Your task to perform on an android device: Add alienware aurora to the cart on amazon, then select checkout. Image 0: 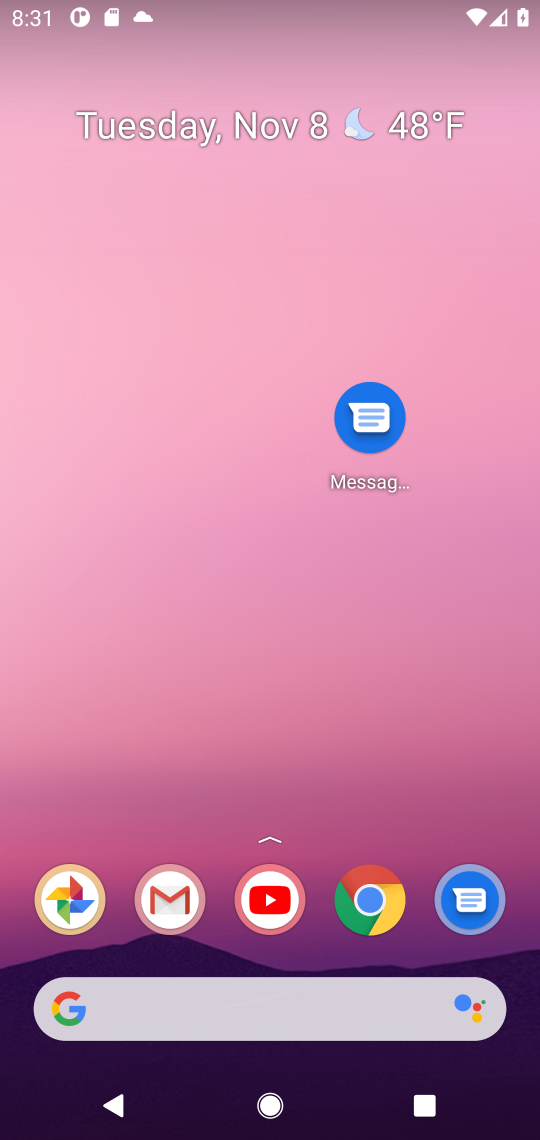
Step 0: drag from (272, 940) to (251, 58)
Your task to perform on an android device: Add alienware aurora to the cart on amazon, then select checkout. Image 1: 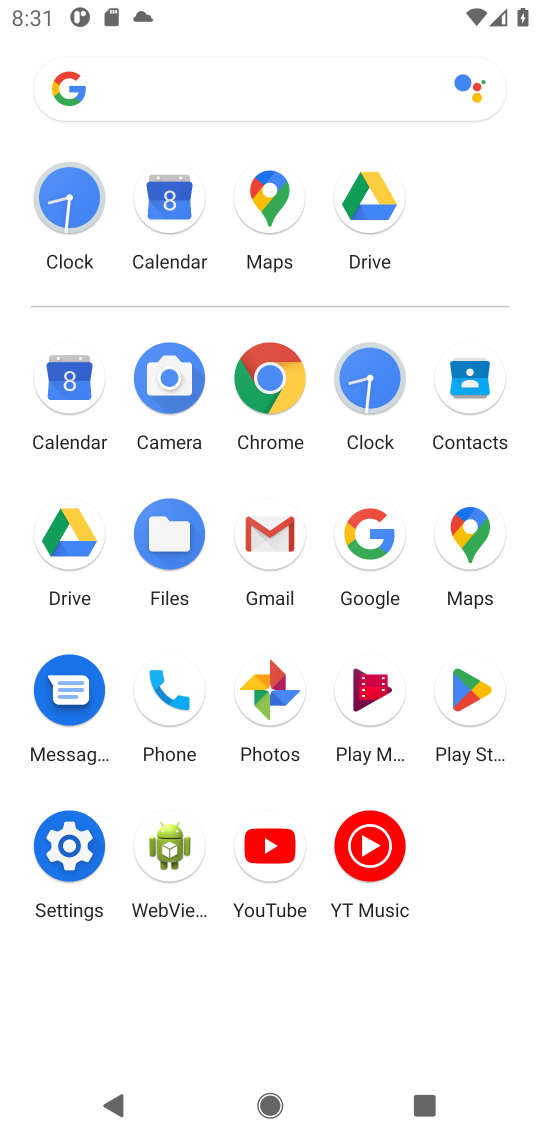
Step 1: click (377, 541)
Your task to perform on an android device: Add alienware aurora to the cart on amazon, then select checkout. Image 2: 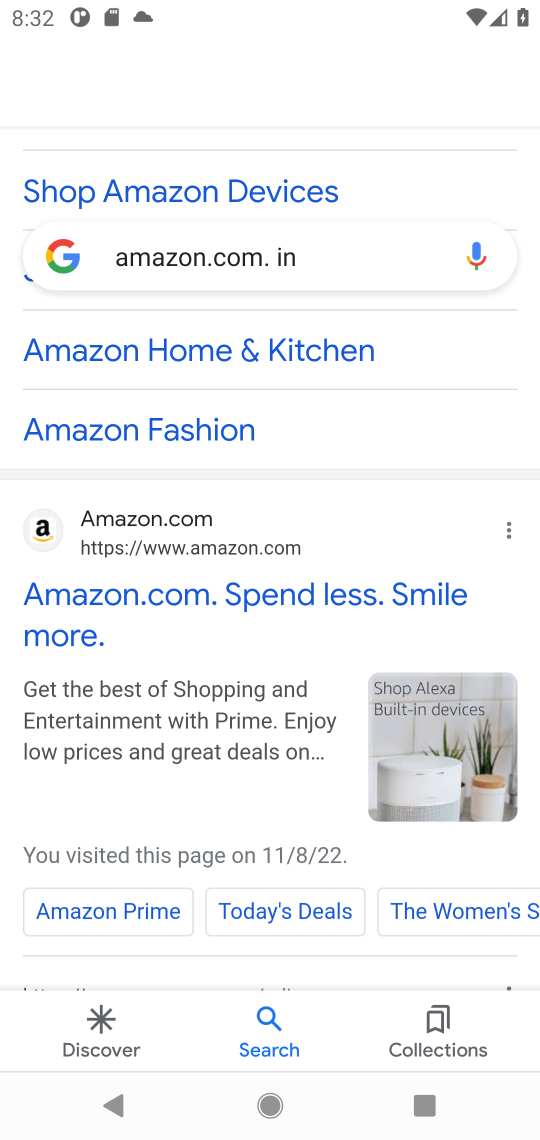
Step 2: click (296, 245)
Your task to perform on an android device: Add alienware aurora to the cart on amazon, then select checkout. Image 3: 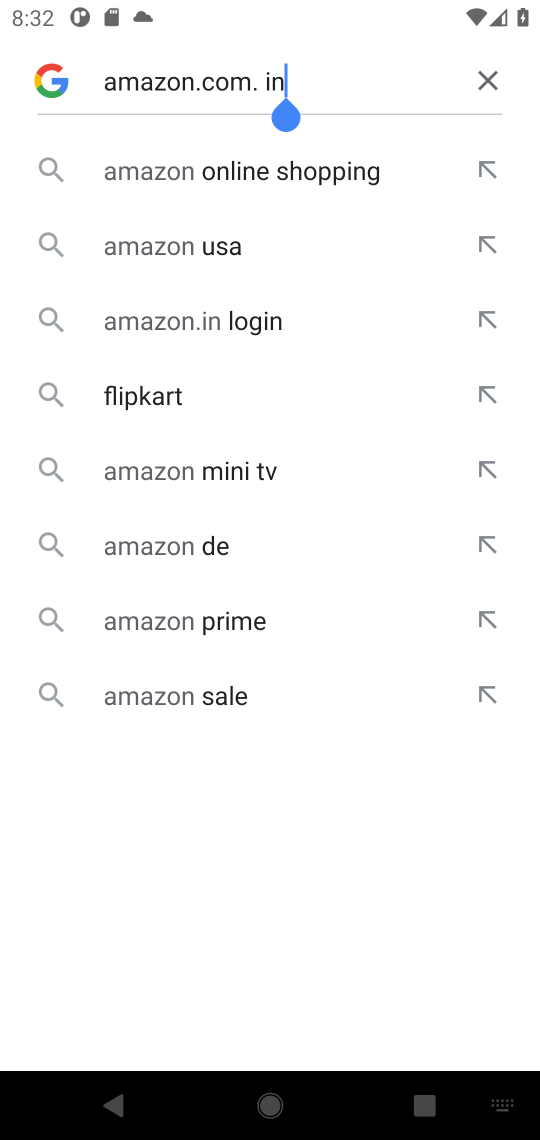
Step 3: click (496, 76)
Your task to perform on an android device: Add alienware aurora to the cart on amazon, then select checkout. Image 4: 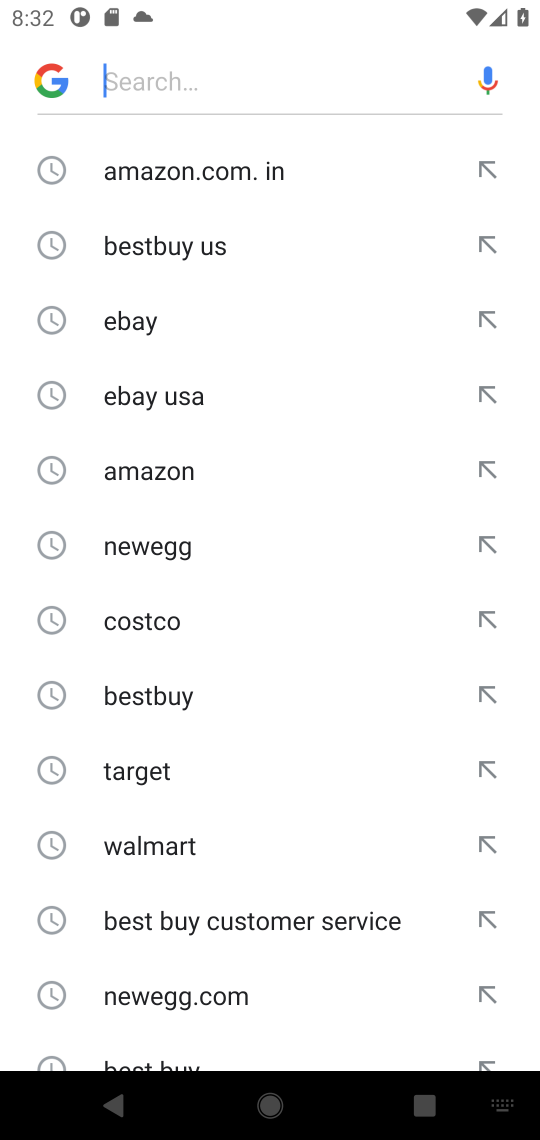
Step 4: click (149, 171)
Your task to perform on an android device: Add alienware aurora to the cart on amazon, then select checkout. Image 5: 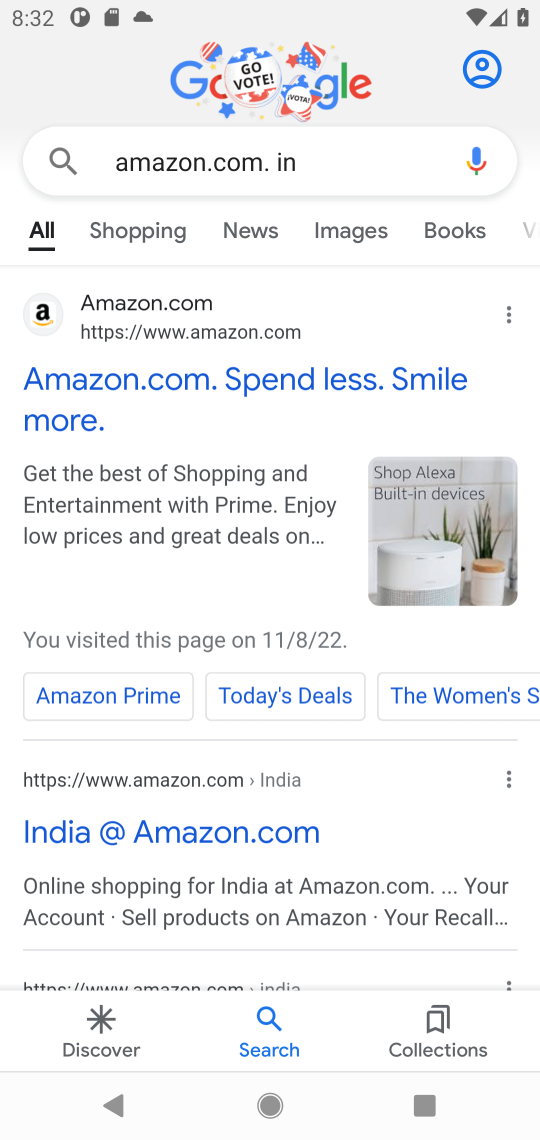
Step 5: click (49, 303)
Your task to perform on an android device: Add alienware aurora to the cart on amazon, then select checkout. Image 6: 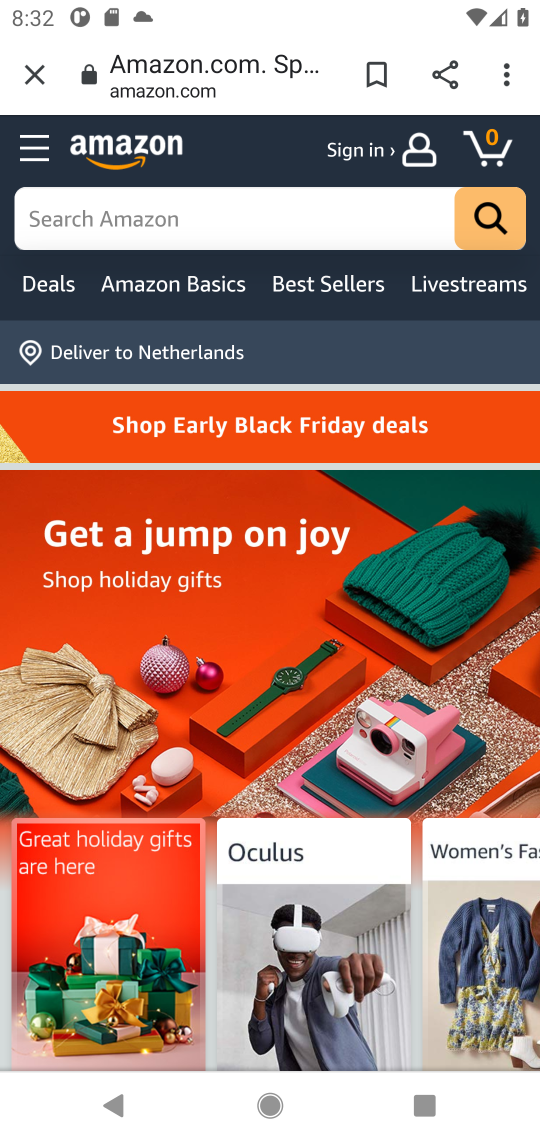
Step 6: click (232, 217)
Your task to perform on an android device: Add alienware aurora to the cart on amazon, then select checkout. Image 7: 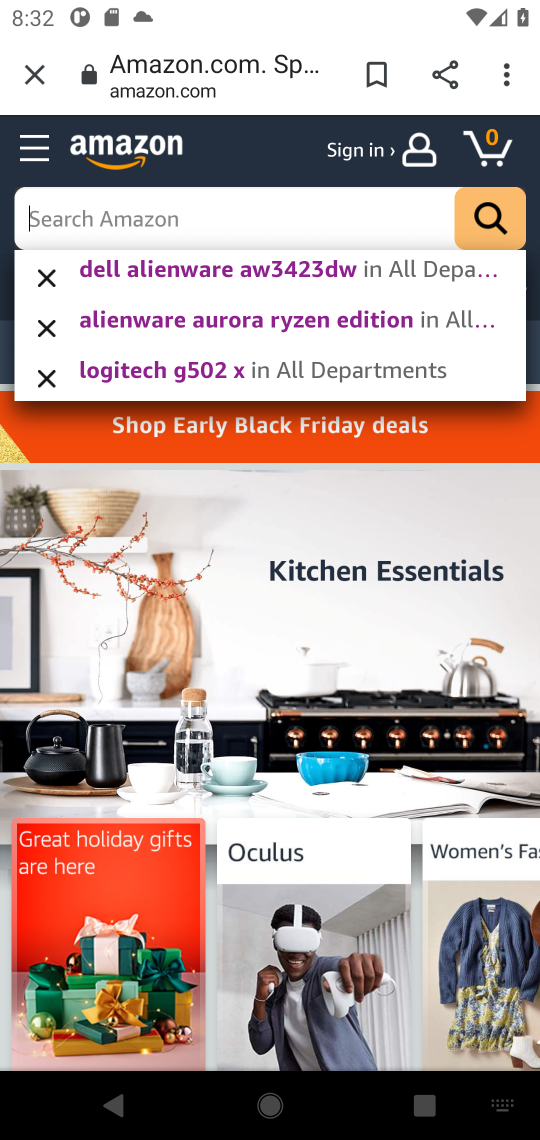
Step 7: click (217, 212)
Your task to perform on an android device: Add alienware aurora to the cart on amazon, then select checkout. Image 8: 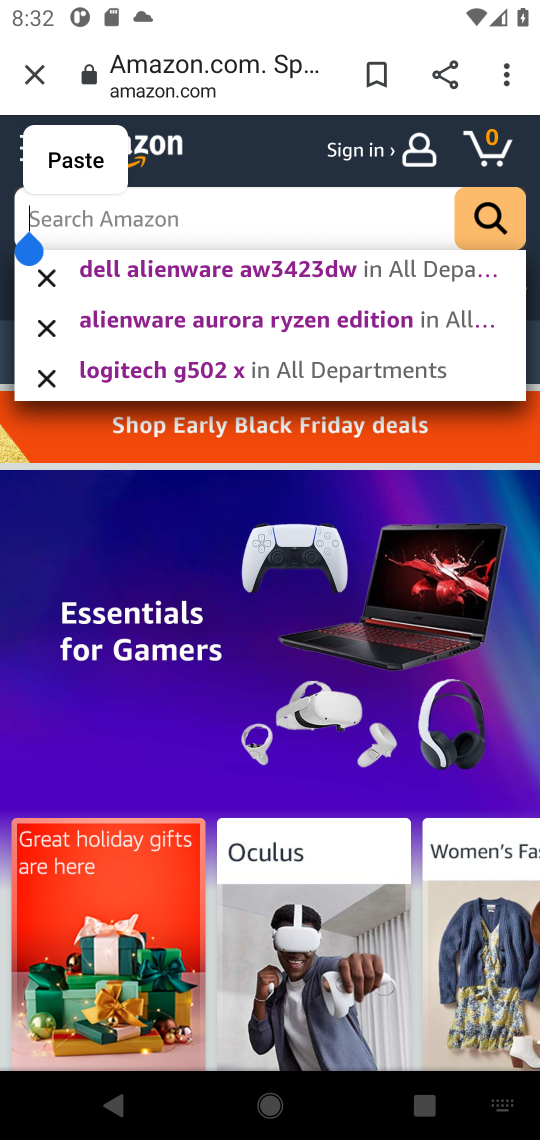
Step 8: type "alienware aurora "
Your task to perform on an android device: Add alienware aurora to the cart on amazon, then select checkout. Image 9: 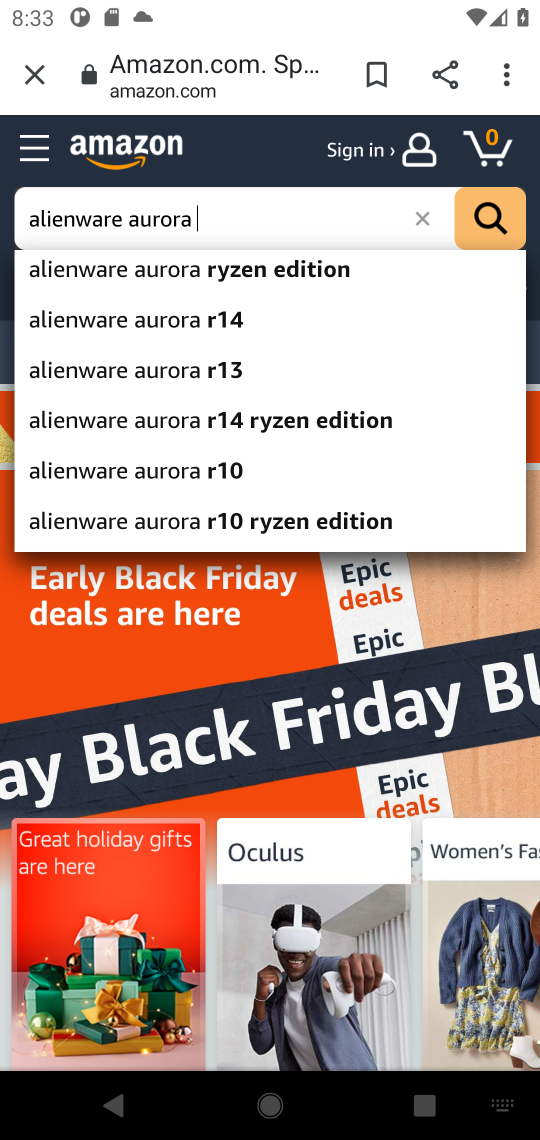
Step 9: click (197, 326)
Your task to perform on an android device: Add alienware aurora to the cart on amazon, then select checkout. Image 10: 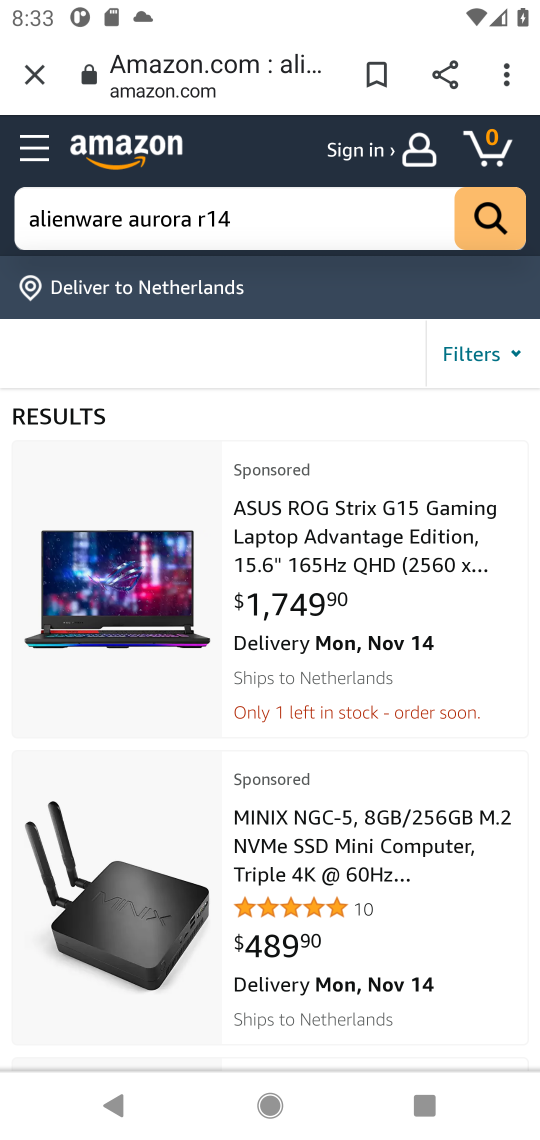
Step 10: drag from (337, 905) to (373, 448)
Your task to perform on an android device: Add alienware aurora to the cart on amazon, then select checkout. Image 11: 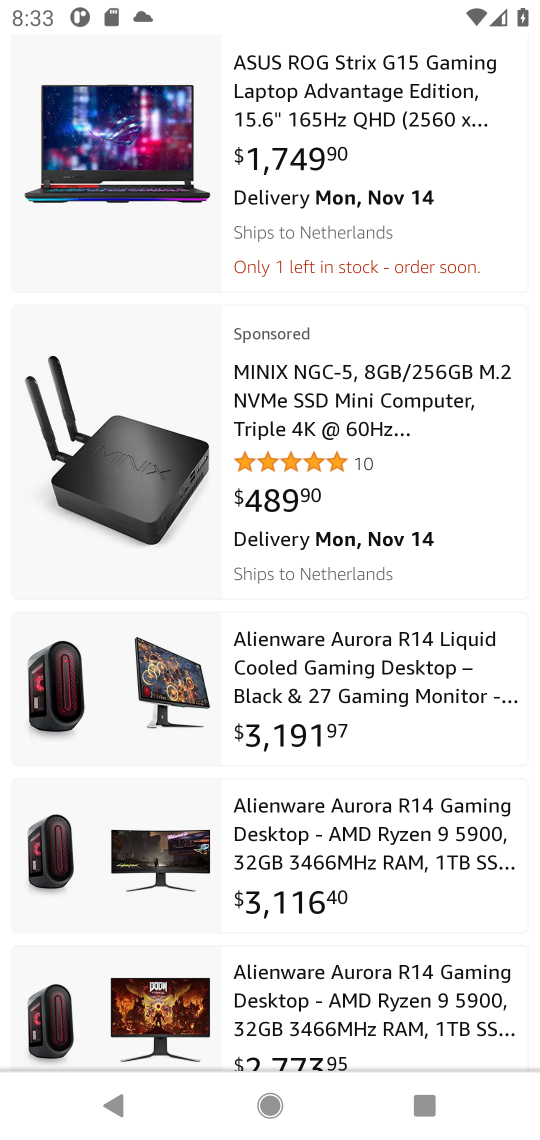
Step 11: click (345, 666)
Your task to perform on an android device: Add alienware aurora to the cart on amazon, then select checkout. Image 12: 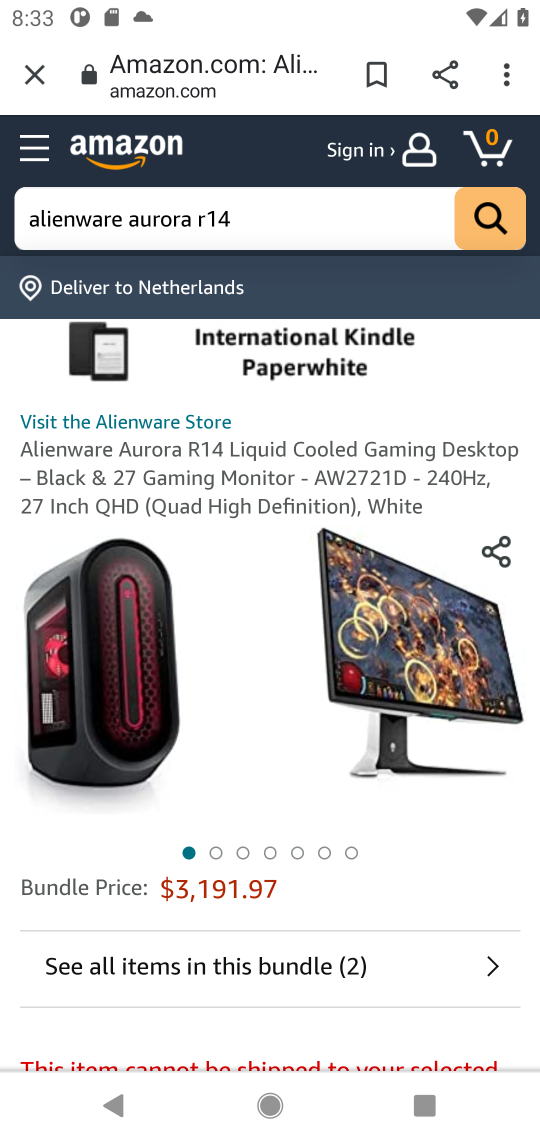
Step 12: drag from (269, 965) to (365, 424)
Your task to perform on an android device: Add alienware aurora to the cart on amazon, then select checkout. Image 13: 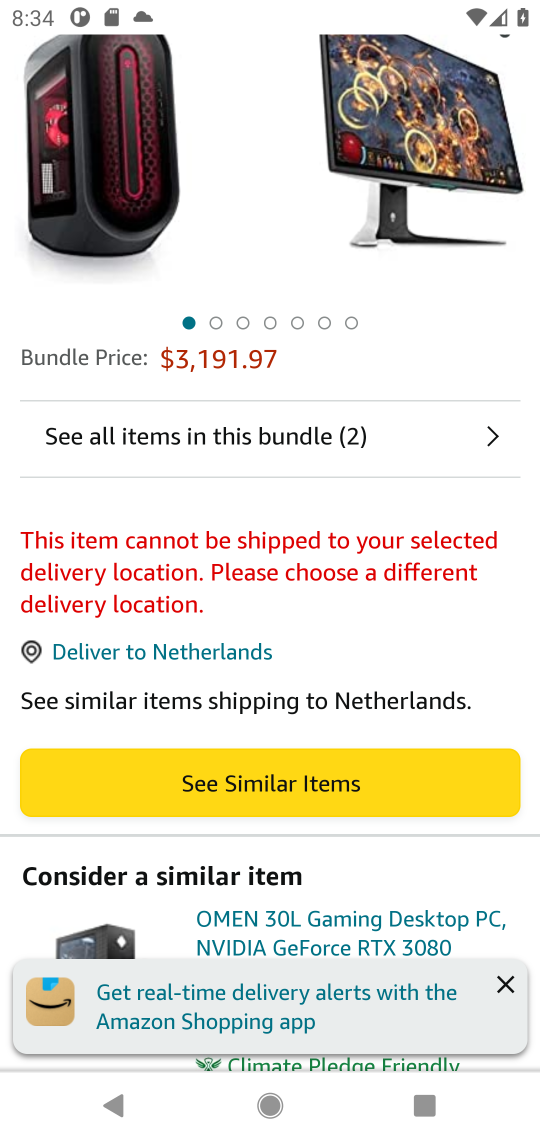
Step 13: click (314, 769)
Your task to perform on an android device: Add alienware aurora to the cart on amazon, then select checkout. Image 14: 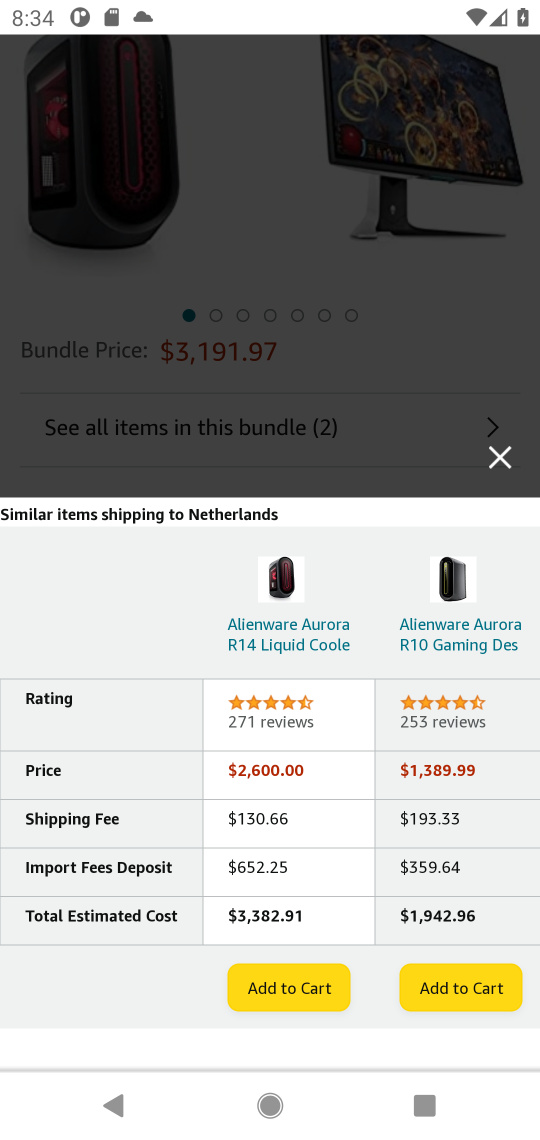
Step 14: click (284, 976)
Your task to perform on an android device: Add alienware aurora to the cart on amazon, then select checkout. Image 15: 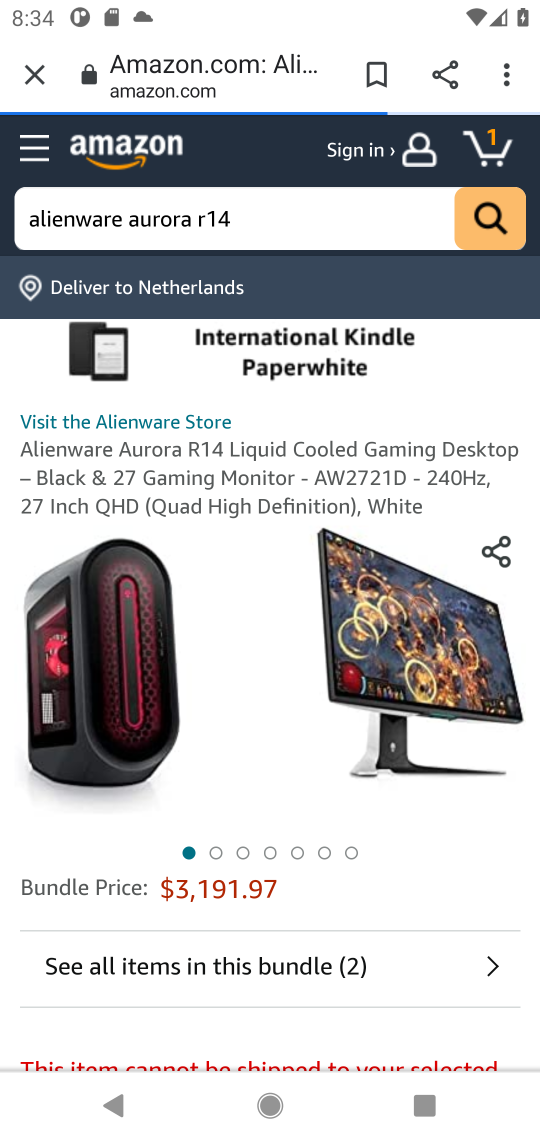
Step 15: task complete